Your task to perform on an android device: Toggle the flashlight Image 0: 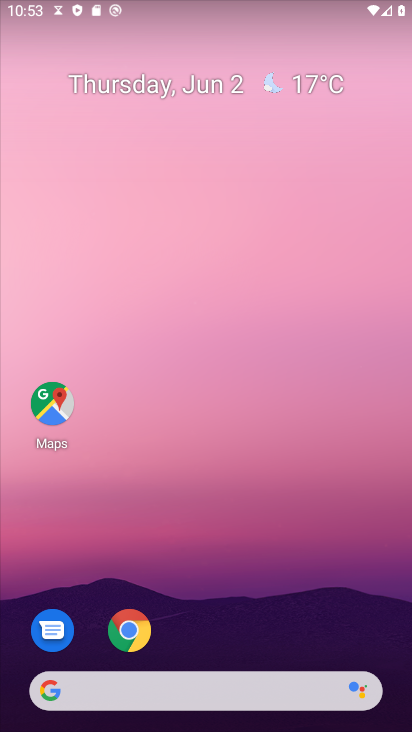
Step 0: drag from (214, 644) to (302, 68)
Your task to perform on an android device: Toggle the flashlight Image 1: 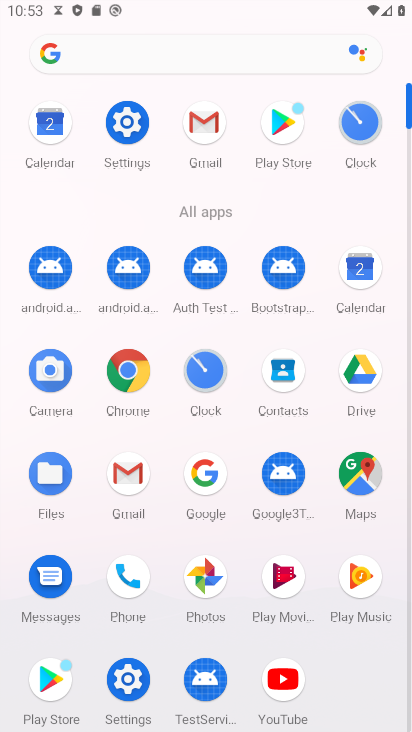
Step 1: click (129, 140)
Your task to perform on an android device: Toggle the flashlight Image 2: 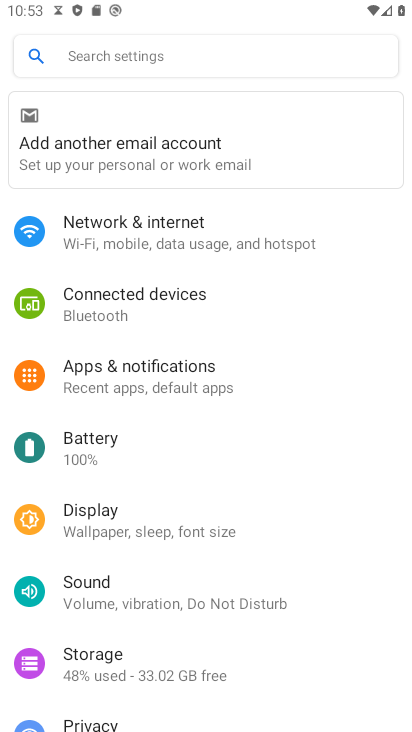
Step 2: click (225, 51)
Your task to perform on an android device: Toggle the flashlight Image 3: 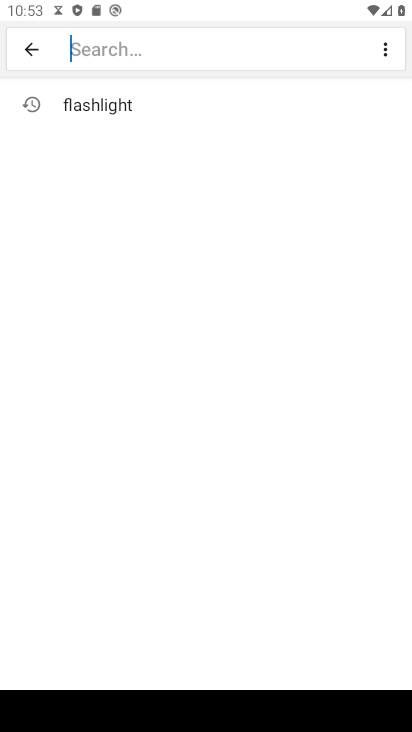
Step 3: type "flashlight"
Your task to perform on an android device: Toggle the flashlight Image 4: 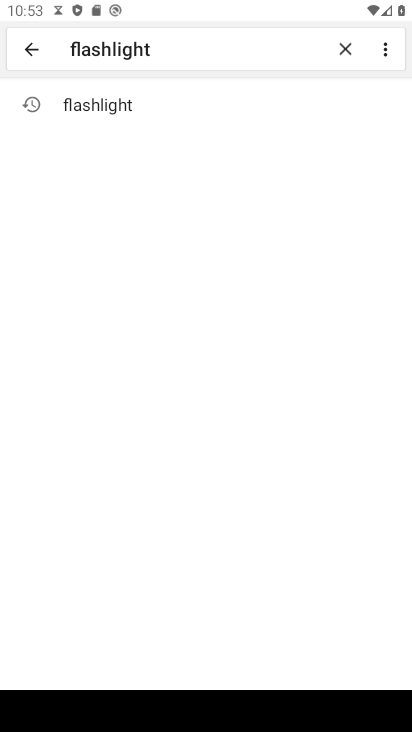
Step 4: click (134, 95)
Your task to perform on an android device: Toggle the flashlight Image 5: 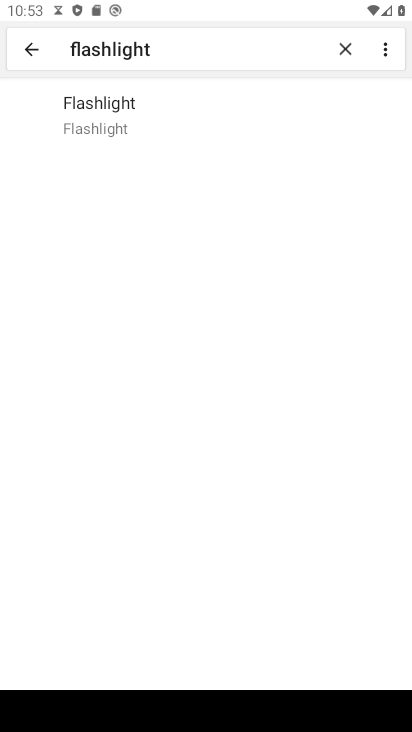
Step 5: click (139, 140)
Your task to perform on an android device: Toggle the flashlight Image 6: 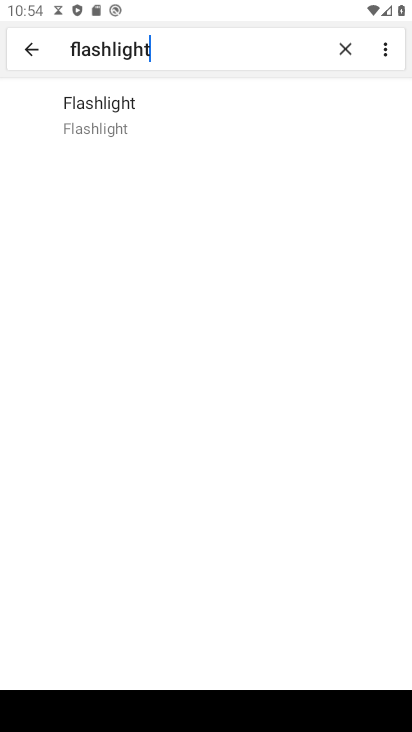
Step 6: click (138, 139)
Your task to perform on an android device: Toggle the flashlight Image 7: 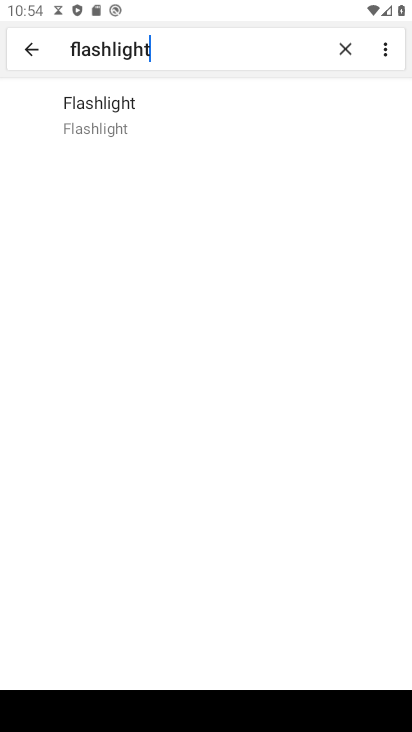
Step 7: task complete